Your task to perform on an android device: Go to Maps Image 0: 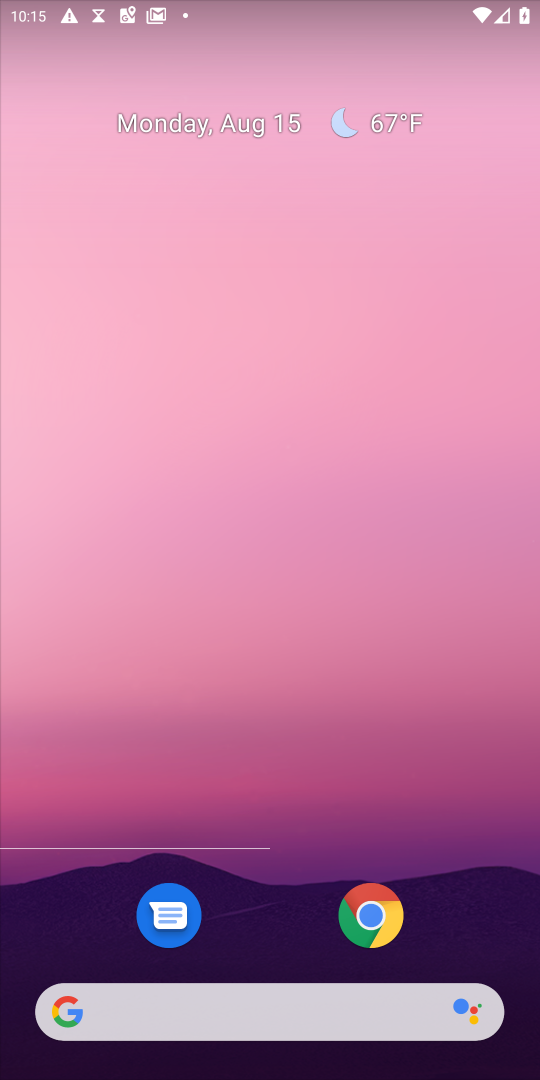
Step 0: press home button
Your task to perform on an android device: Go to Maps Image 1: 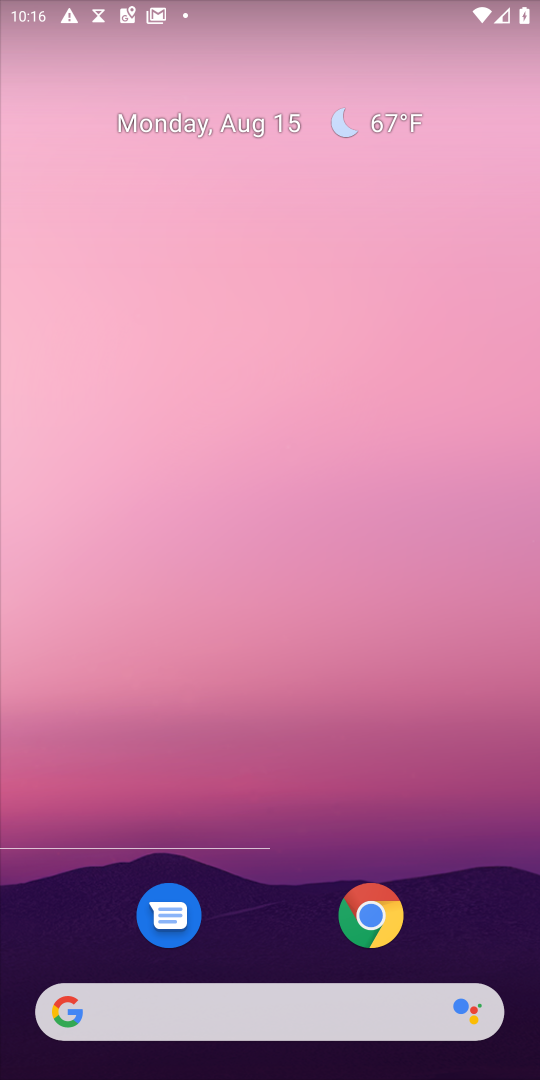
Step 1: press home button
Your task to perform on an android device: Go to Maps Image 2: 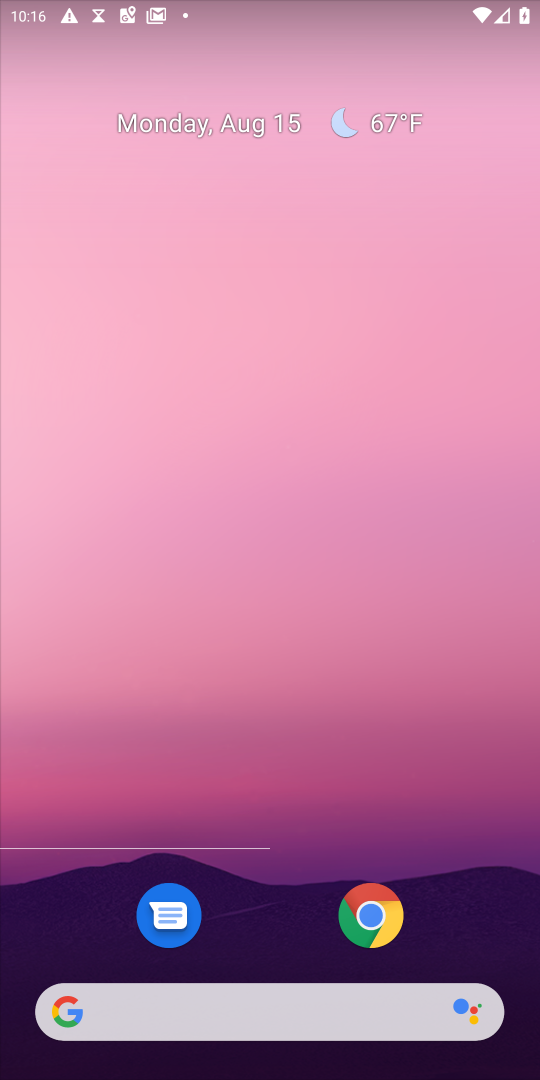
Step 2: drag from (328, 841) to (330, 165)
Your task to perform on an android device: Go to Maps Image 3: 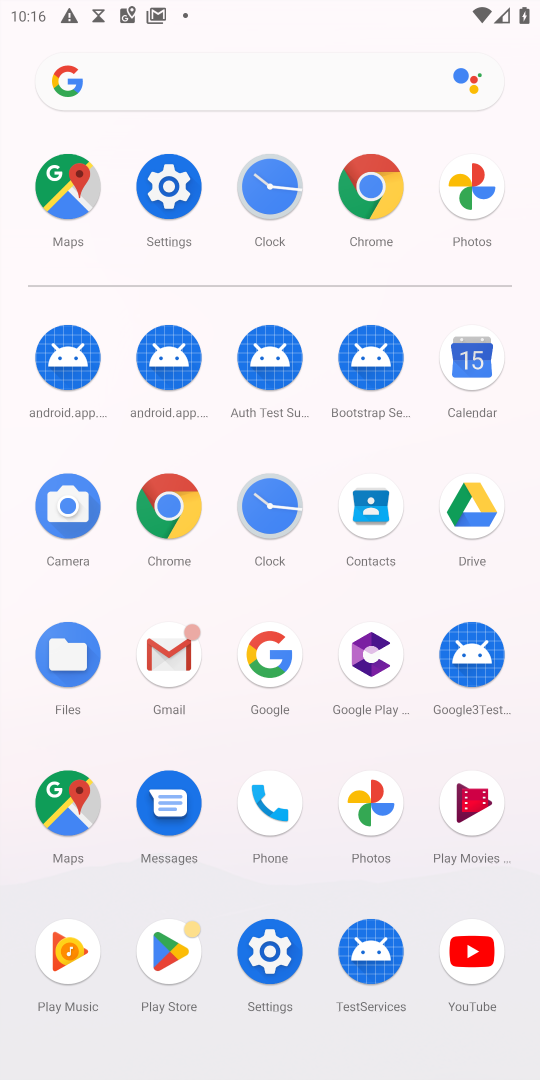
Step 3: click (72, 816)
Your task to perform on an android device: Go to Maps Image 4: 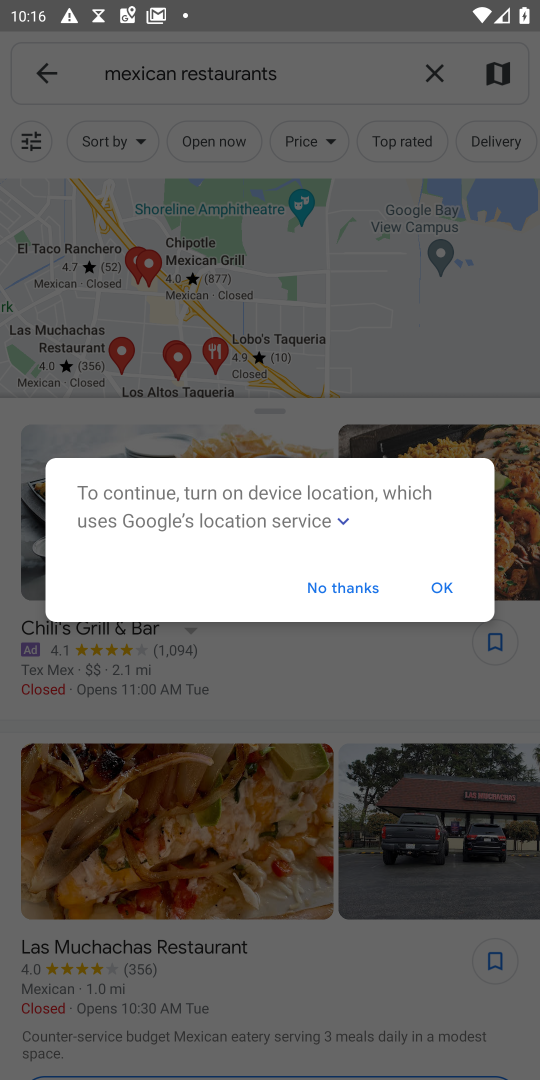
Step 4: click (41, 68)
Your task to perform on an android device: Go to Maps Image 5: 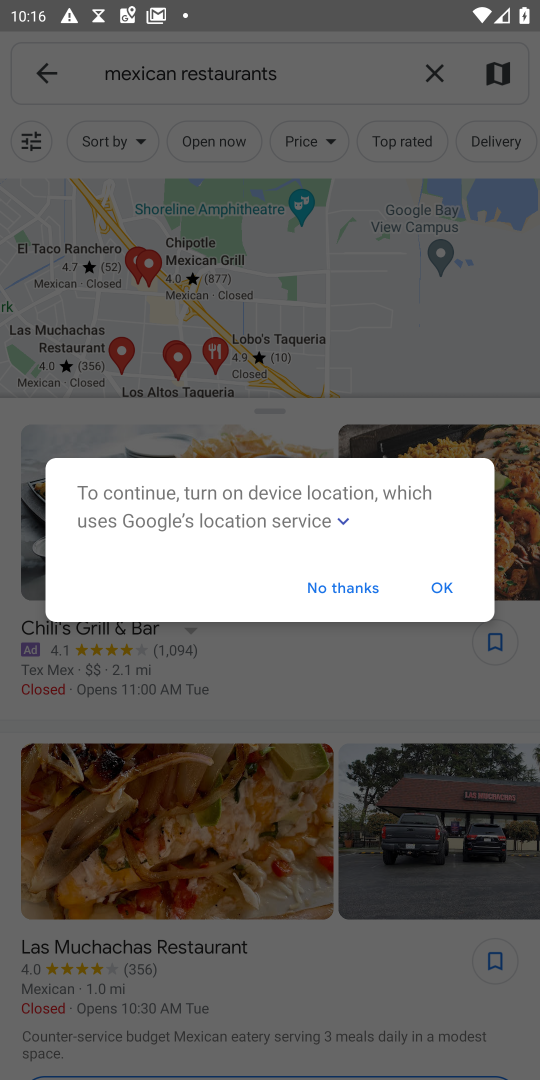
Step 5: click (337, 584)
Your task to perform on an android device: Go to Maps Image 6: 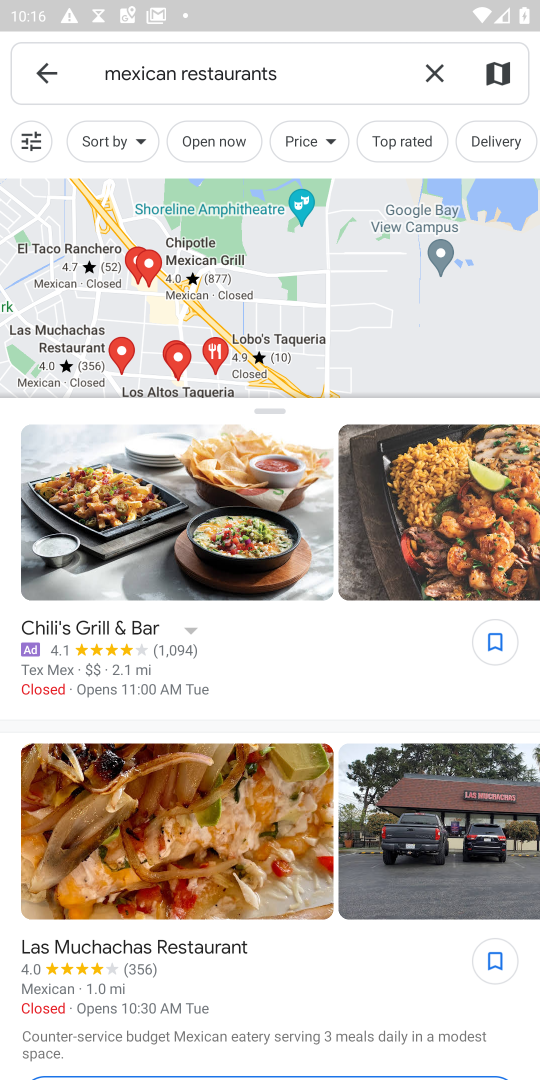
Step 6: click (39, 70)
Your task to perform on an android device: Go to Maps Image 7: 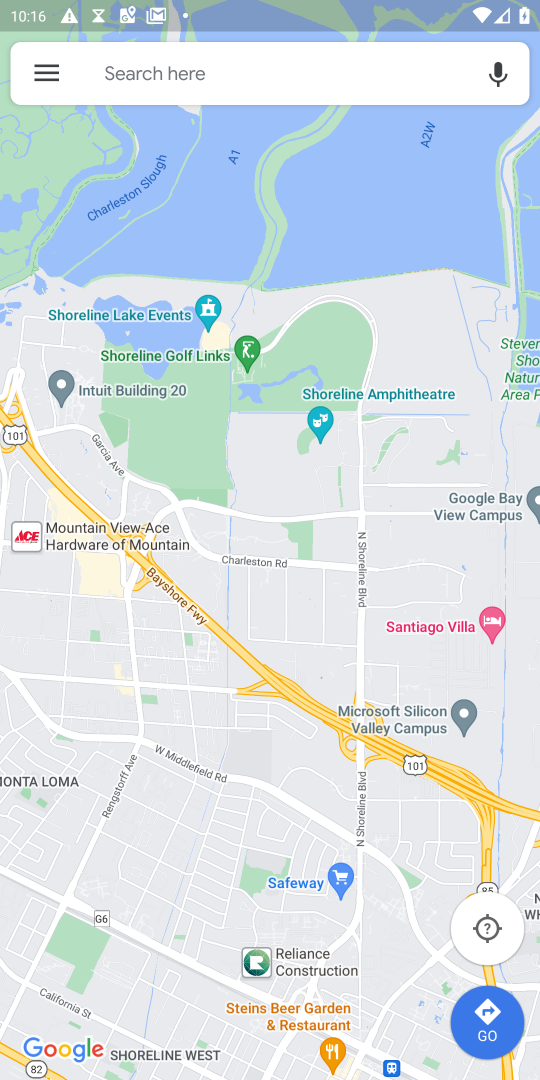
Step 7: task complete